Your task to perform on an android device: Go to ESPN.com Image 0: 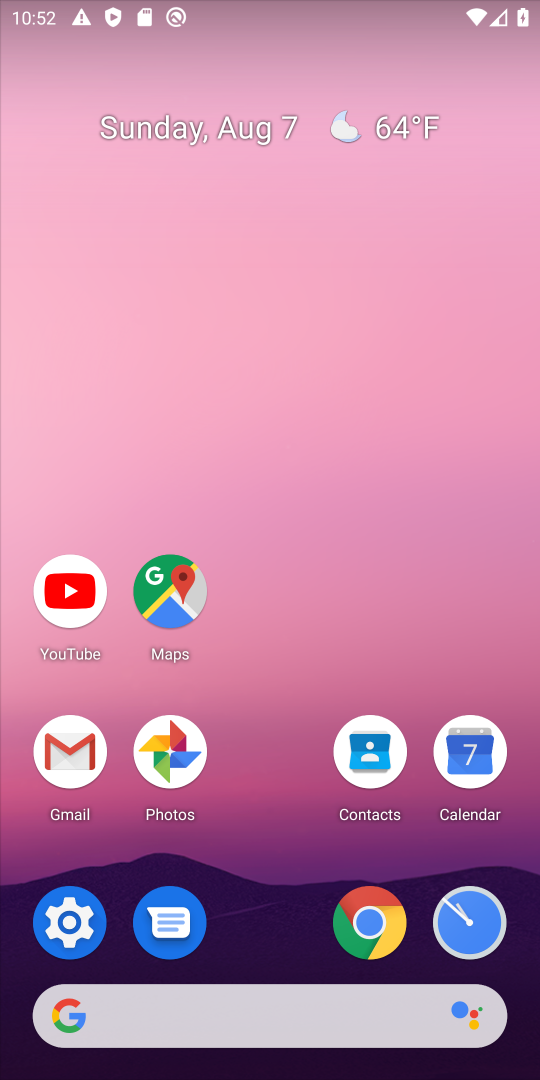
Step 0: click (368, 927)
Your task to perform on an android device: Go to ESPN.com Image 1: 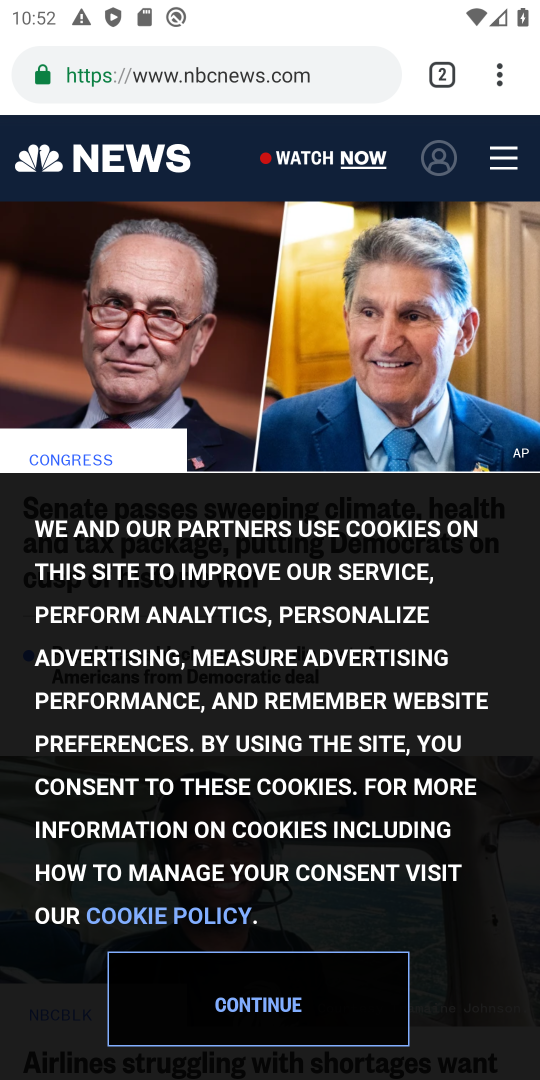
Step 1: click (504, 75)
Your task to perform on an android device: Go to ESPN.com Image 2: 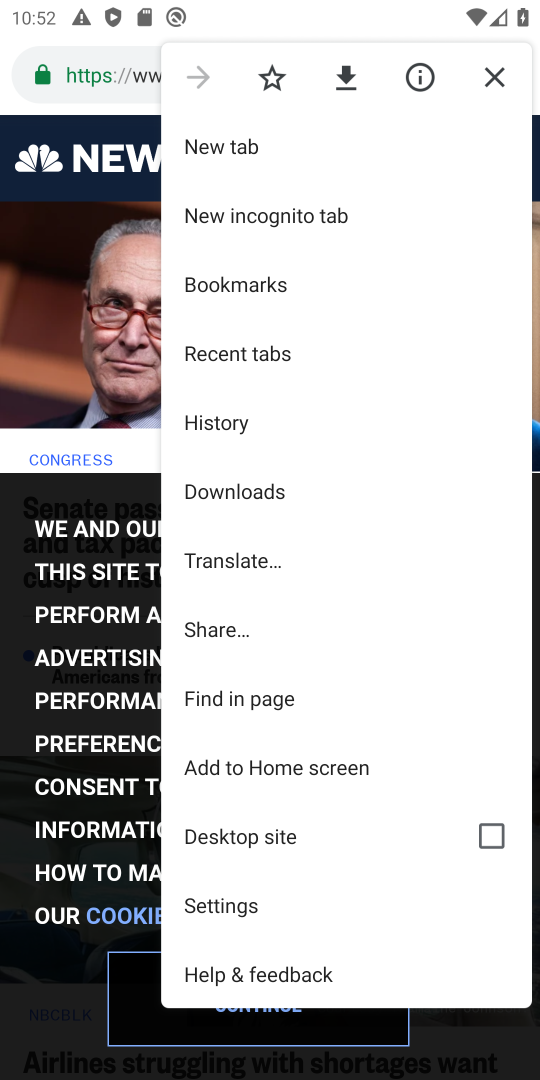
Step 2: click (203, 148)
Your task to perform on an android device: Go to ESPN.com Image 3: 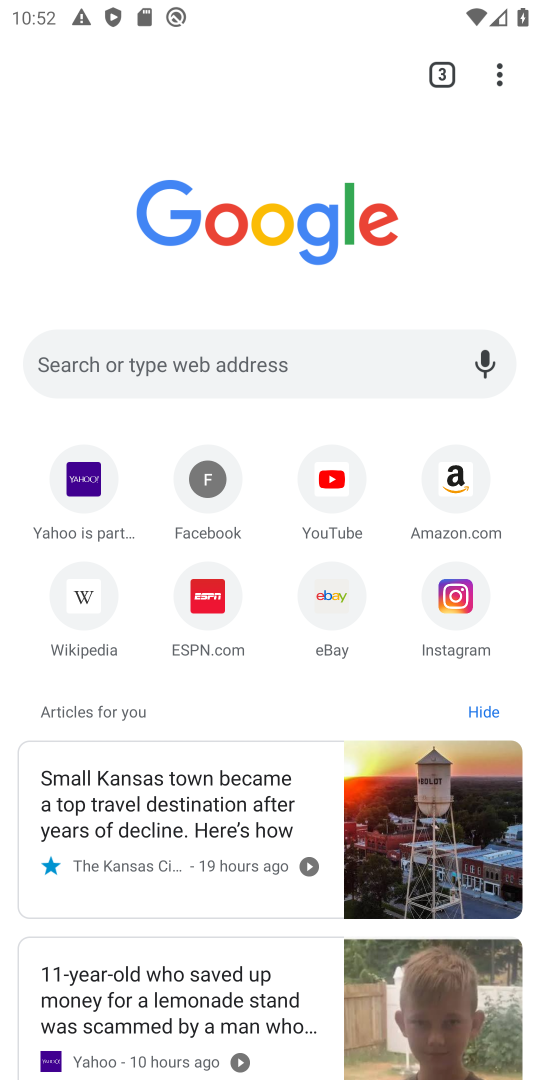
Step 3: click (208, 588)
Your task to perform on an android device: Go to ESPN.com Image 4: 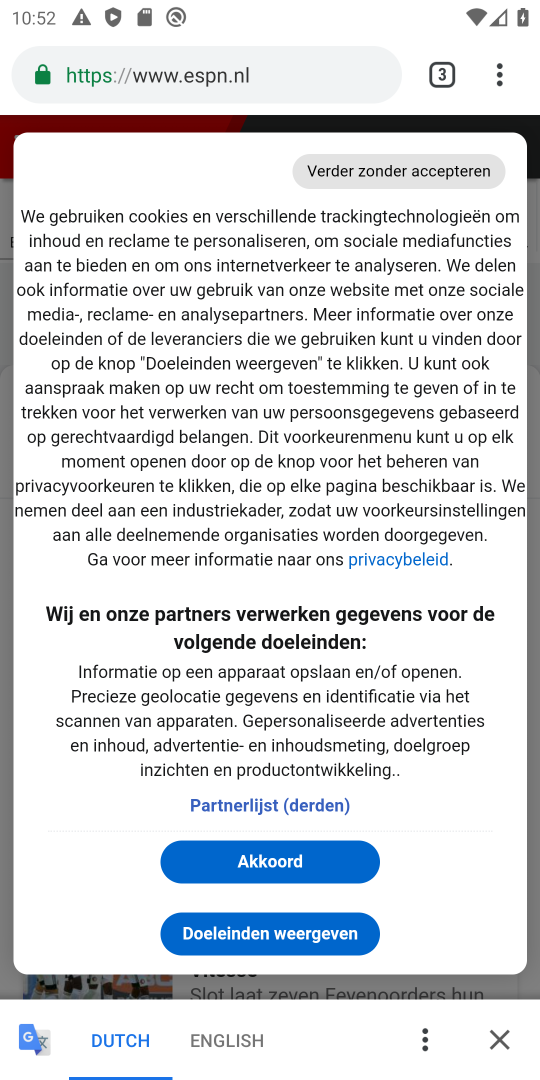
Step 4: click (283, 860)
Your task to perform on an android device: Go to ESPN.com Image 5: 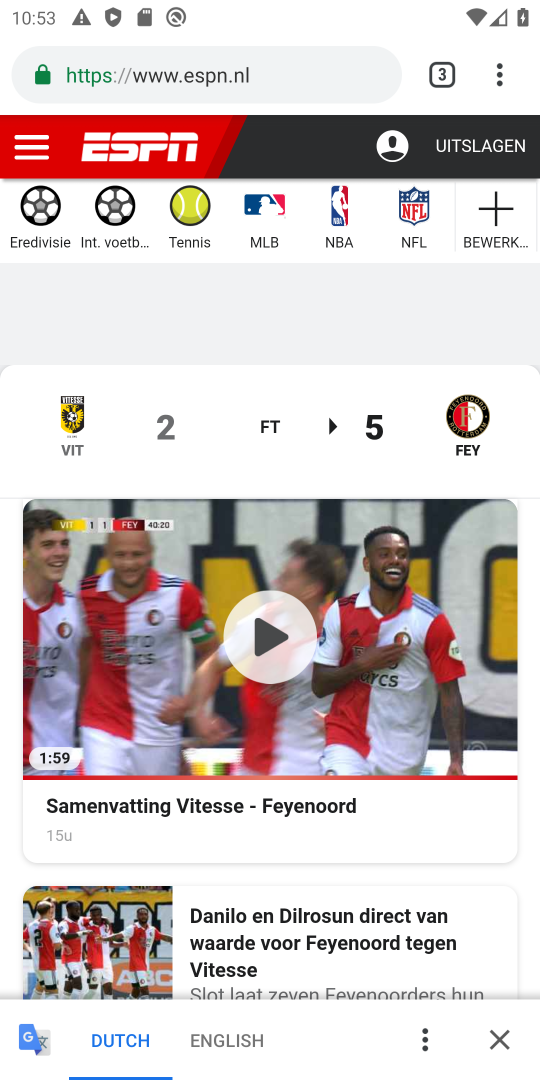
Step 5: task complete